Your task to perform on an android device: toggle javascript in the chrome app Image 0: 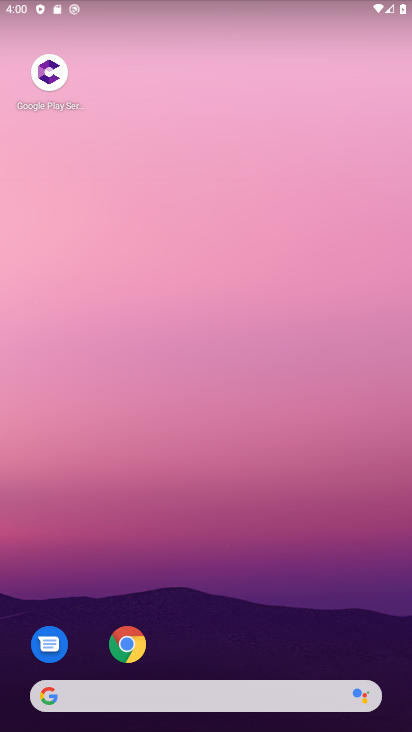
Step 0: click (144, 655)
Your task to perform on an android device: toggle javascript in the chrome app Image 1: 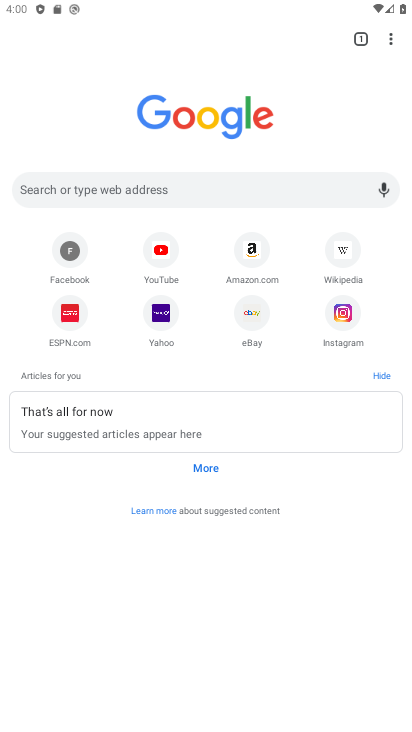
Step 1: click (386, 41)
Your task to perform on an android device: toggle javascript in the chrome app Image 2: 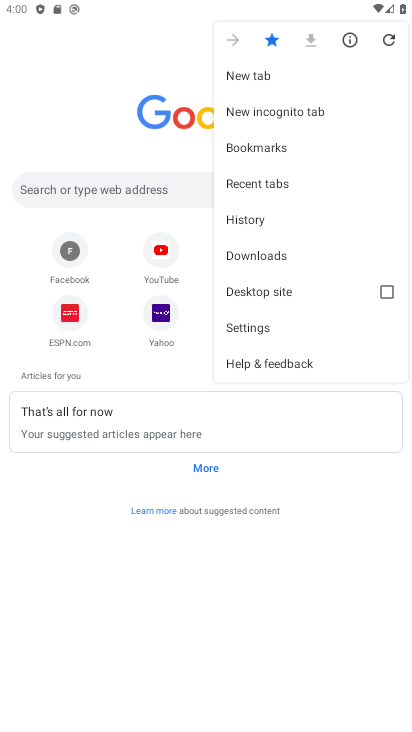
Step 2: click (255, 326)
Your task to perform on an android device: toggle javascript in the chrome app Image 3: 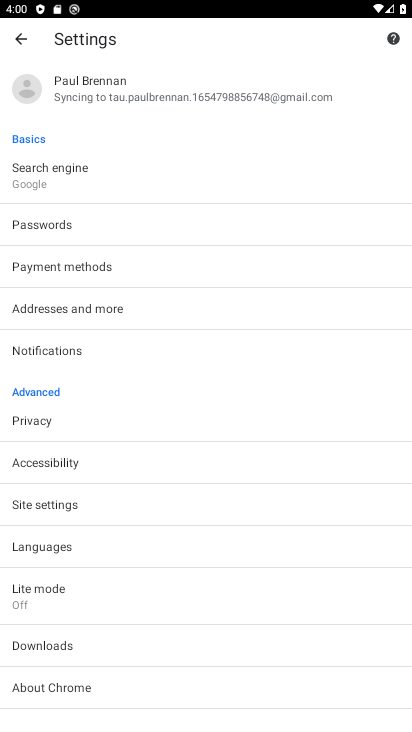
Step 3: drag from (122, 669) to (167, 312)
Your task to perform on an android device: toggle javascript in the chrome app Image 4: 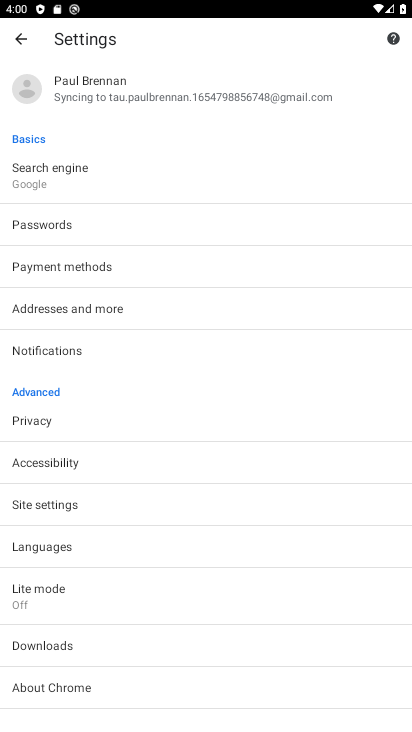
Step 4: click (81, 512)
Your task to perform on an android device: toggle javascript in the chrome app Image 5: 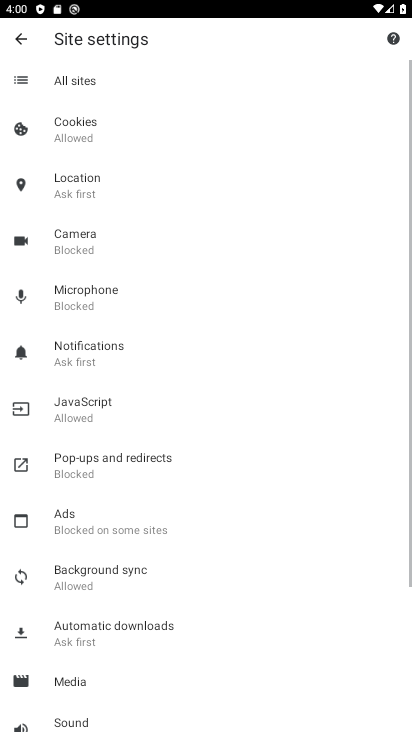
Step 5: click (121, 409)
Your task to perform on an android device: toggle javascript in the chrome app Image 6: 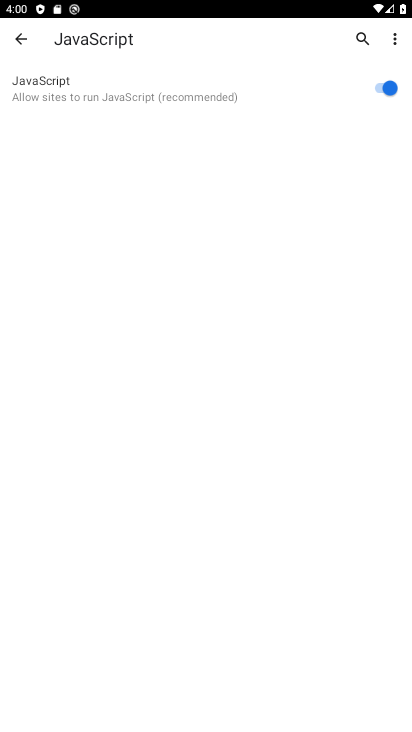
Step 6: click (366, 79)
Your task to perform on an android device: toggle javascript in the chrome app Image 7: 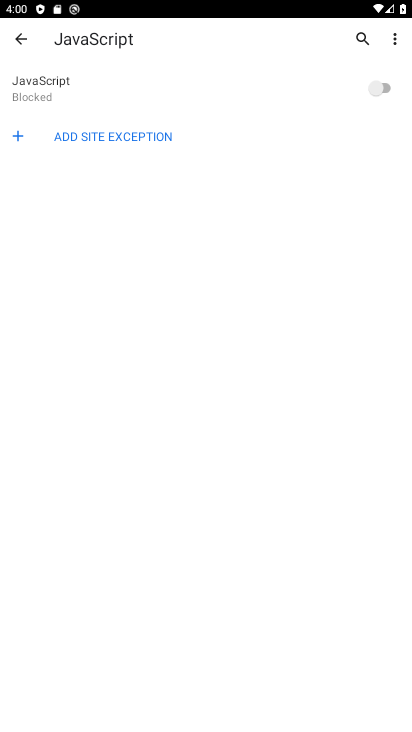
Step 7: task complete